Your task to perform on an android device: change notification settings in the gmail app Image 0: 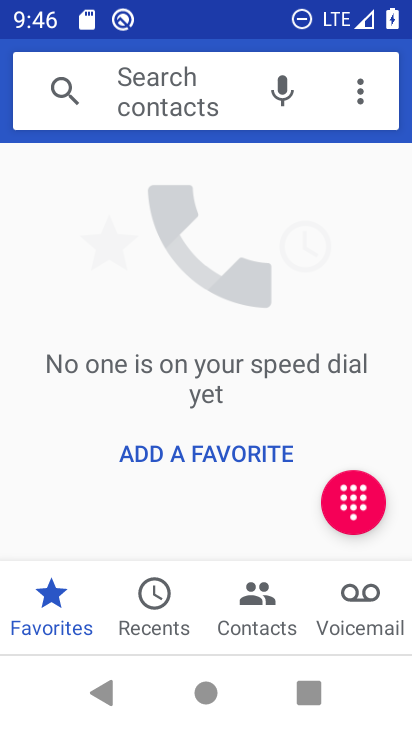
Step 0: press home button
Your task to perform on an android device: change notification settings in the gmail app Image 1: 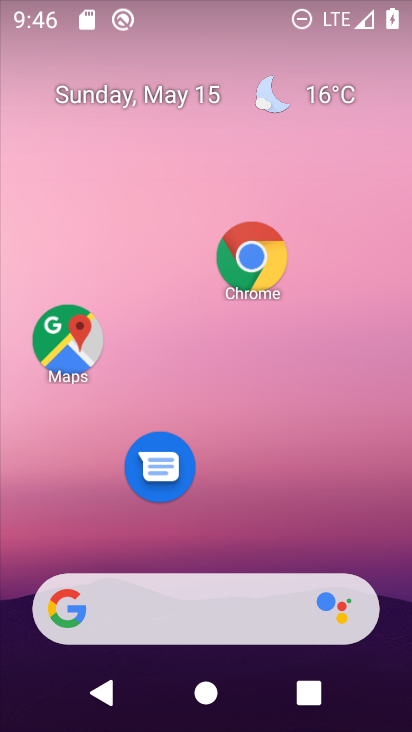
Step 1: drag from (221, 566) to (276, 178)
Your task to perform on an android device: change notification settings in the gmail app Image 2: 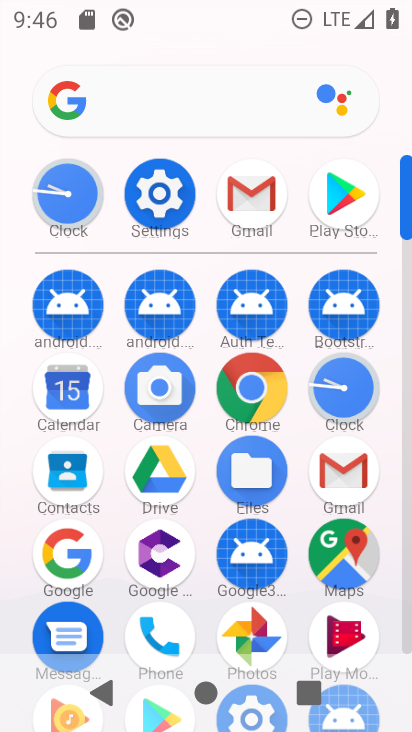
Step 2: click (185, 185)
Your task to perform on an android device: change notification settings in the gmail app Image 3: 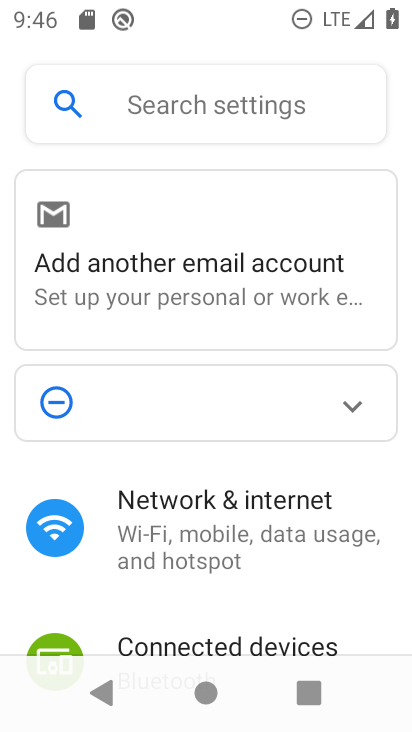
Step 3: drag from (185, 596) to (212, 219)
Your task to perform on an android device: change notification settings in the gmail app Image 4: 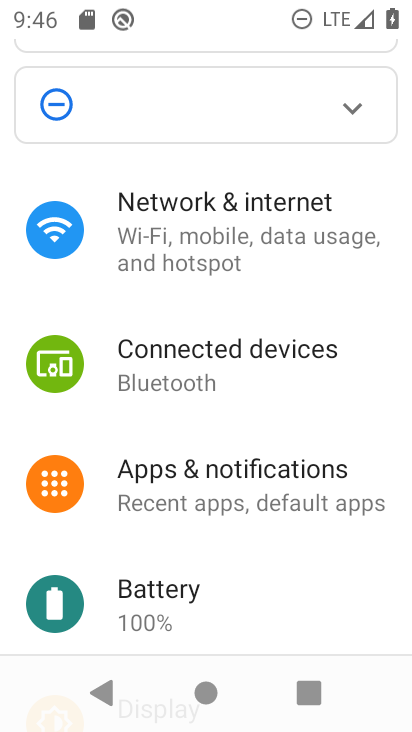
Step 4: click (212, 493)
Your task to perform on an android device: change notification settings in the gmail app Image 5: 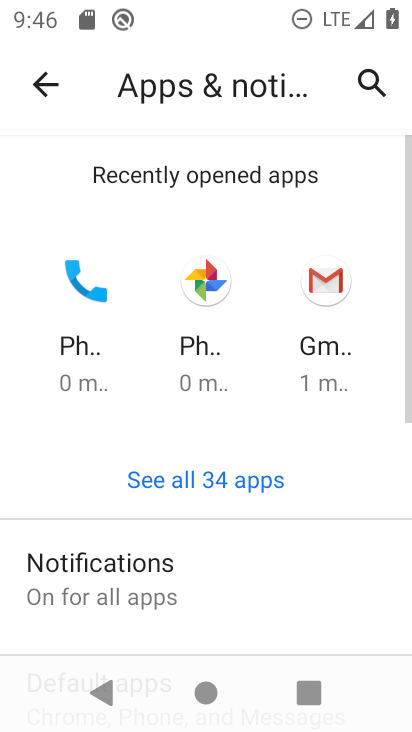
Step 5: click (319, 295)
Your task to perform on an android device: change notification settings in the gmail app Image 6: 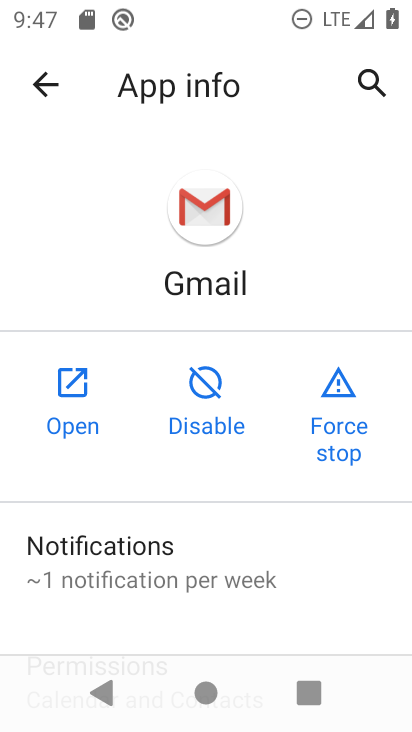
Step 6: drag from (194, 595) to (167, 39)
Your task to perform on an android device: change notification settings in the gmail app Image 7: 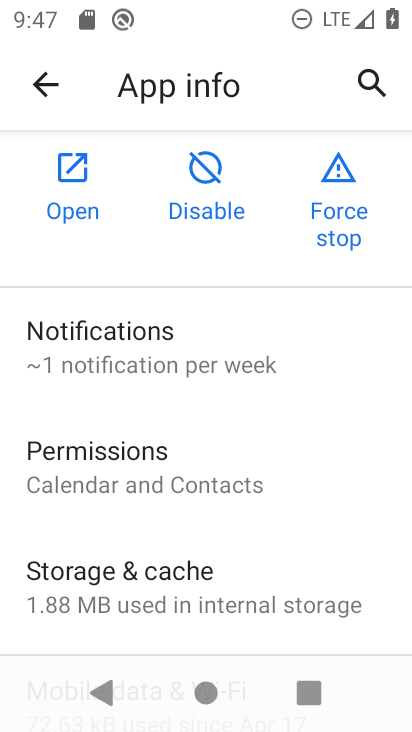
Step 7: click (166, 457)
Your task to perform on an android device: change notification settings in the gmail app Image 8: 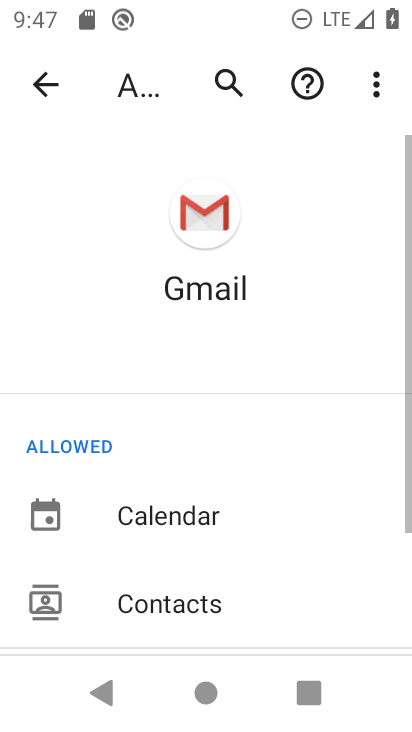
Step 8: click (137, 381)
Your task to perform on an android device: change notification settings in the gmail app Image 9: 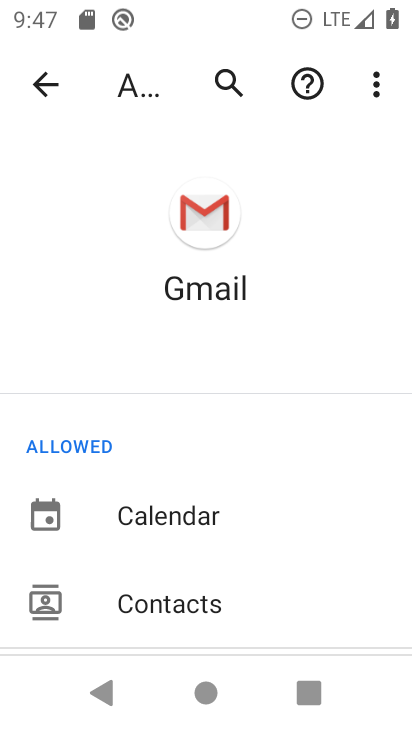
Step 9: drag from (212, 574) to (227, 79)
Your task to perform on an android device: change notification settings in the gmail app Image 10: 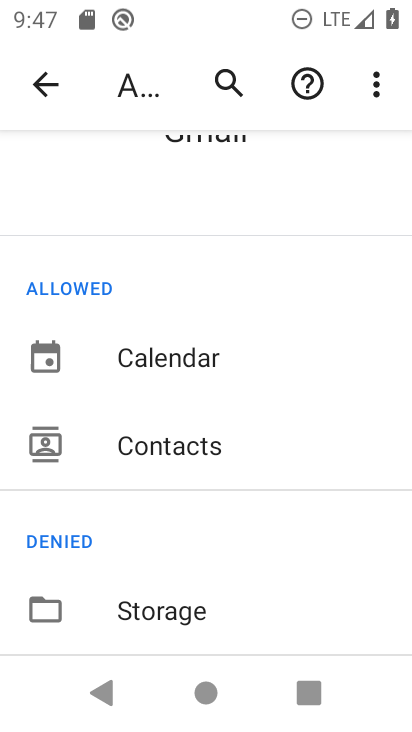
Step 10: click (31, 78)
Your task to perform on an android device: change notification settings in the gmail app Image 11: 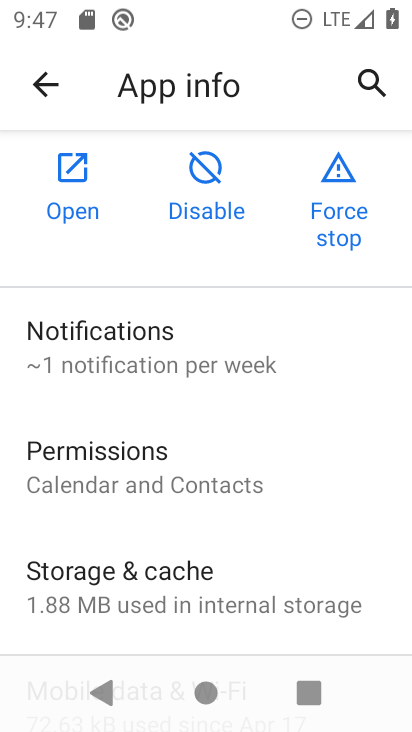
Step 11: click (237, 349)
Your task to perform on an android device: change notification settings in the gmail app Image 12: 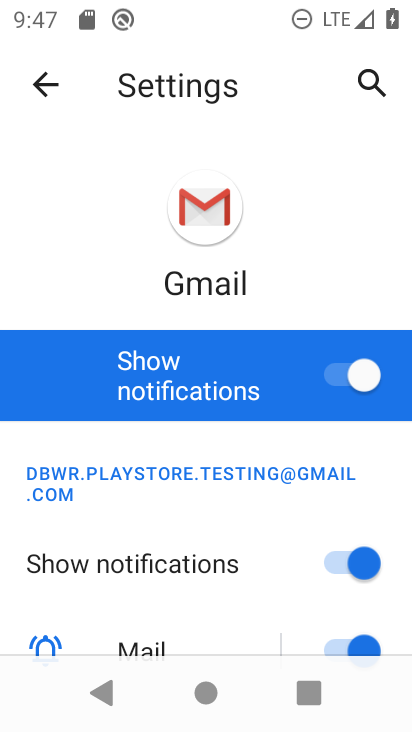
Step 12: drag from (261, 619) to (274, 174)
Your task to perform on an android device: change notification settings in the gmail app Image 13: 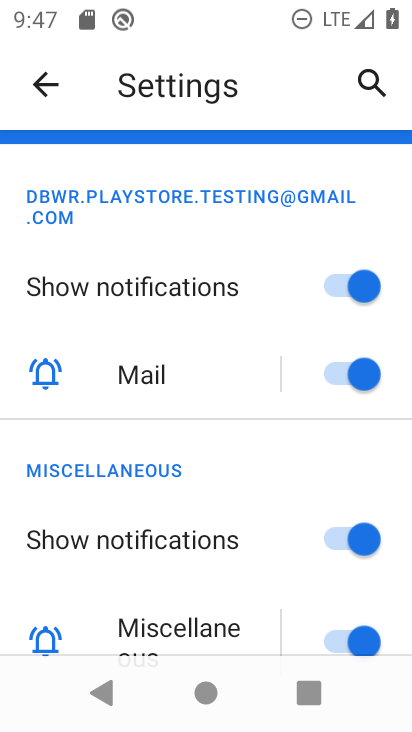
Step 13: click (364, 535)
Your task to perform on an android device: change notification settings in the gmail app Image 14: 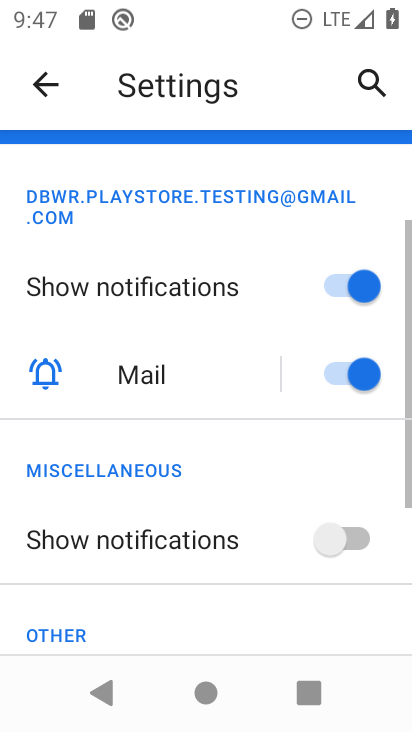
Step 14: click (340, 373)
Your task to perform on an android device: change notification settings in the gmail app Image 15: 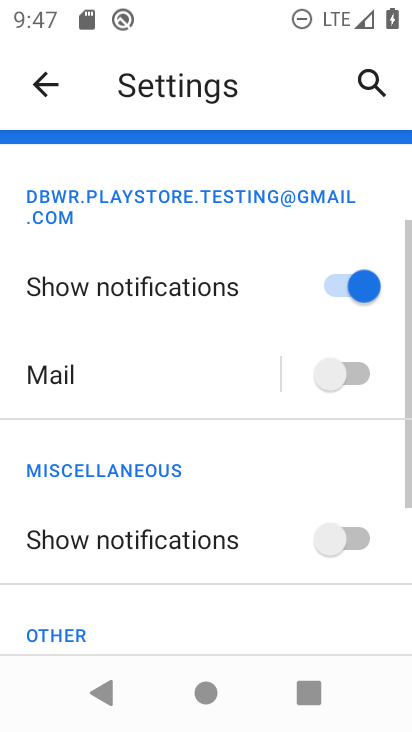
Step 15: task complete